Your task to perform on an android device: Open Amazon Image 0: 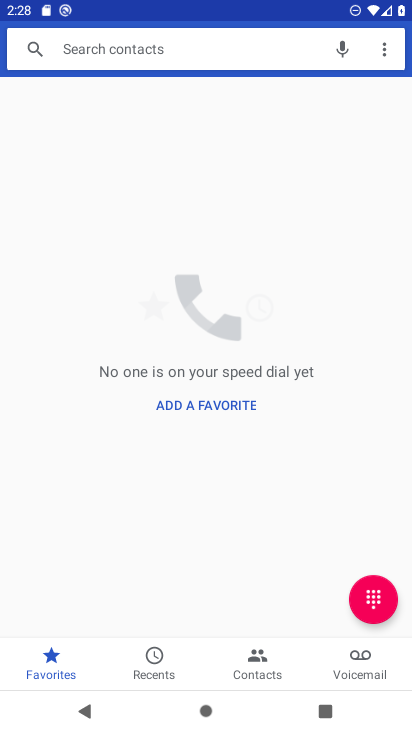
Step 0: press home button
Your task to perform on an android device: Open Amazon Image 1: 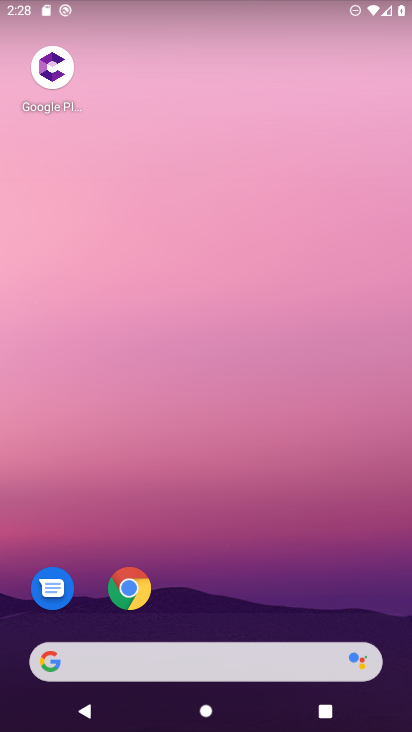
Step 1: click (129, 591)
Your task to perform on an android device: Open Amazon Image 2: 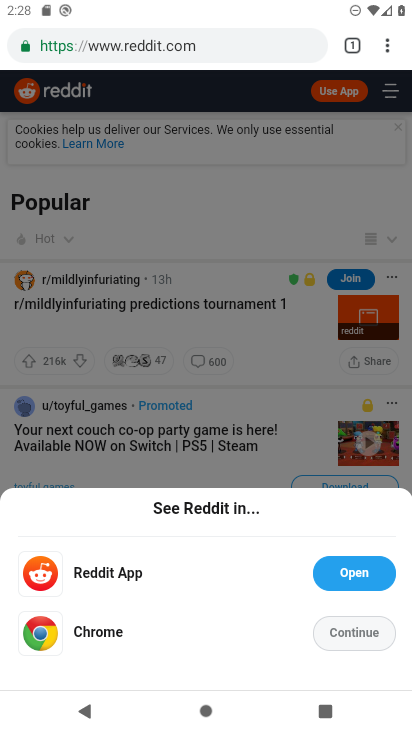
Step 2: click (140, 51)
Your task to perform on an android device: Open Amazon Image 3: 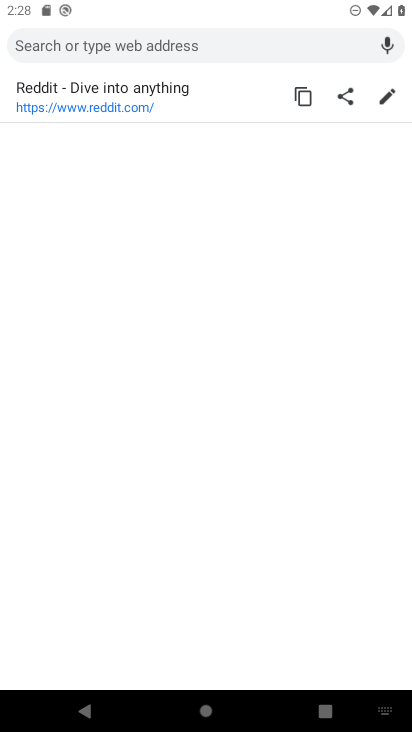
Step 3: type "Amazon"
Your task to perform on an android device: Open Amazon Image 4: 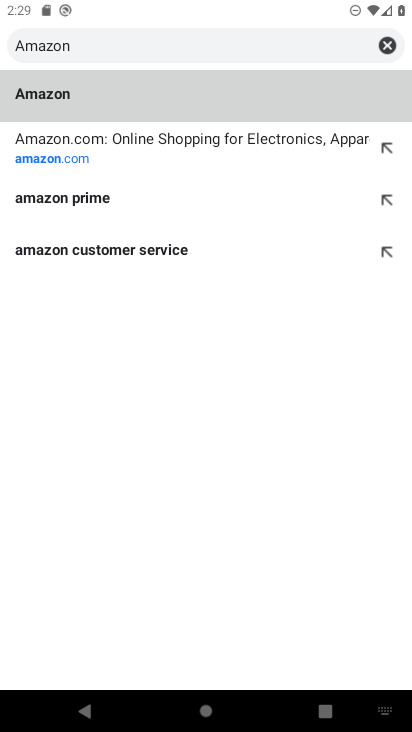
Step 4: click (68, 96)
Your task to perform on an android device: Open Amazon Image 5: 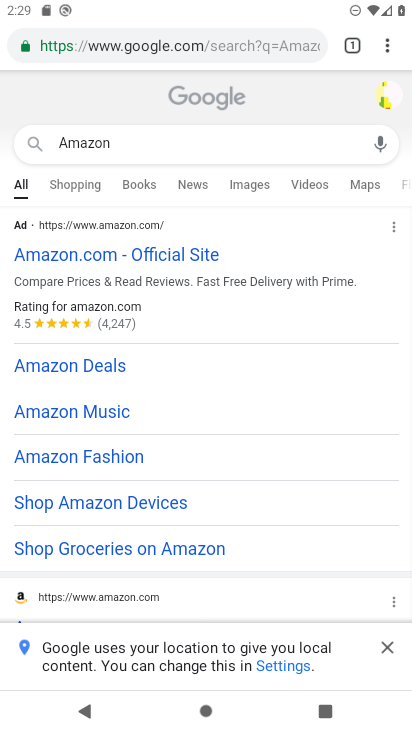
Step 5: task complete